Your task to perform on an android device: toggle airplane mode Image 0: 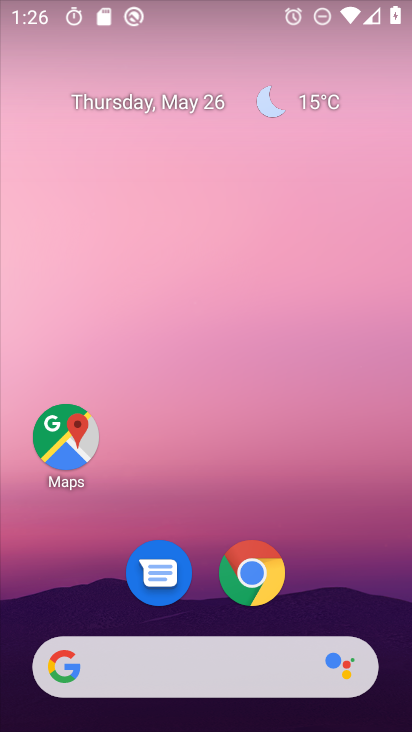
Step 0: drag from (339, 545) to (372, 9)
Your task to perform on an android device: toggle airplane mode Image 1: 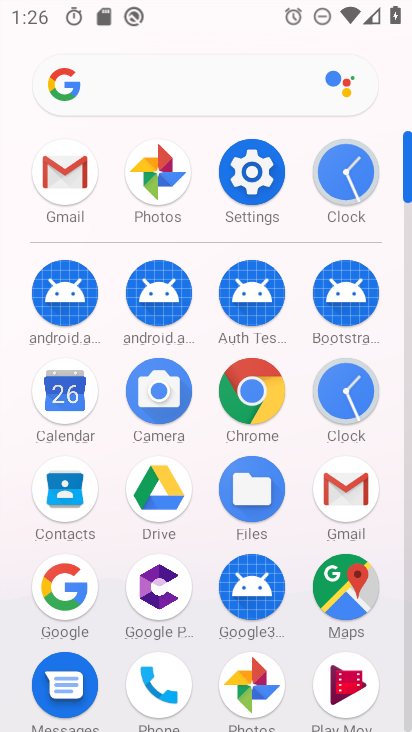
Step 1: click (255, 180)
Your task to perform on an android device: toggle airplane mode Image 2: 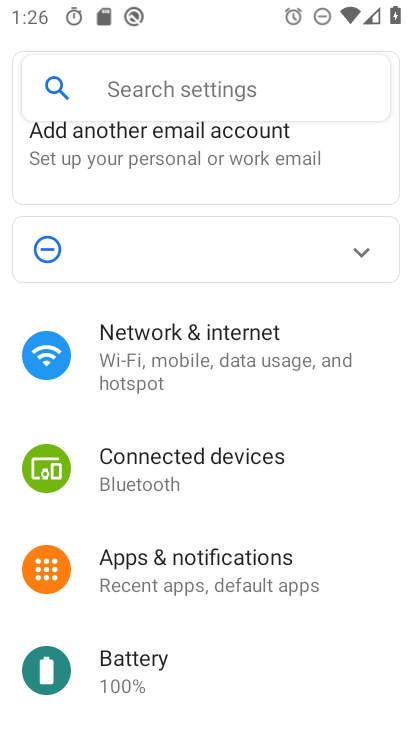
Step 2: click (142, 370)
Your task to perform on an android device: toggle airplane mode Image 3: 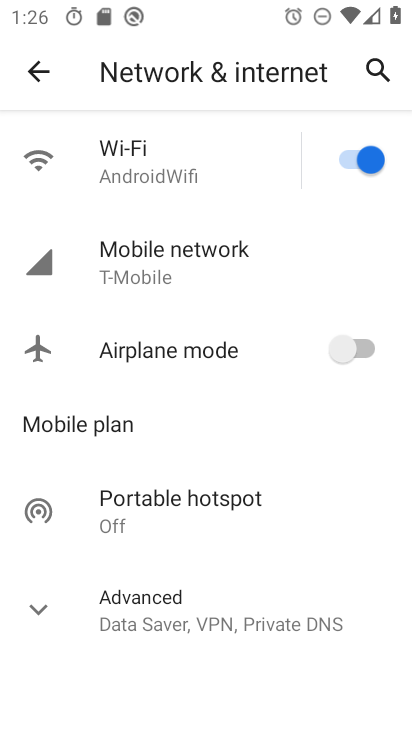
Step 3: click (340, 360)
Your task to perform on an android device: toggle airplane mode Image 4: 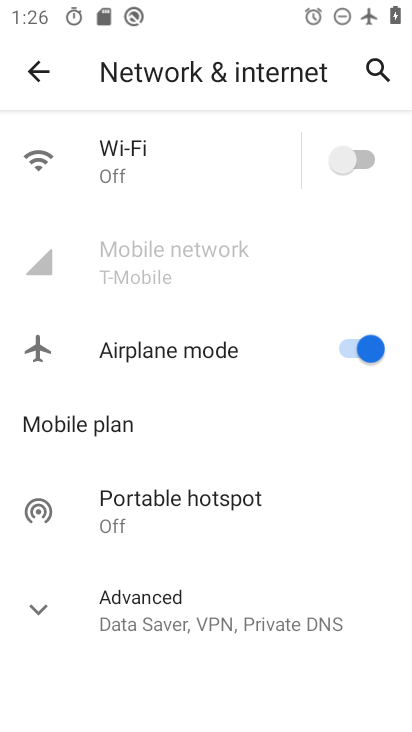
Step 4: task complete